Your task to perform on an android device: Open the web browser Image 0: 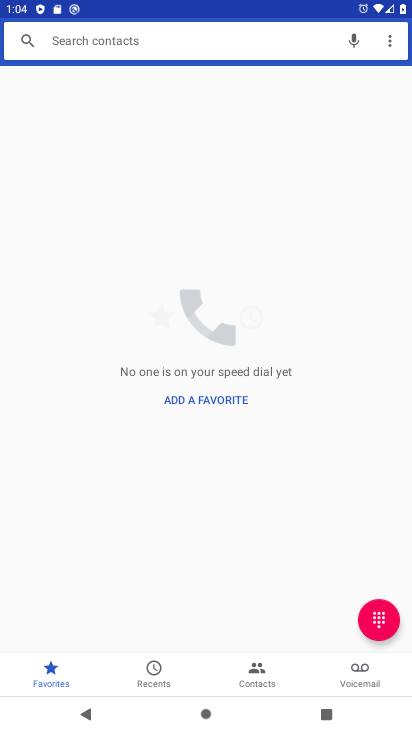
Step 0: press home button
Your task to perform on an android device: Open the web browser Image 1: 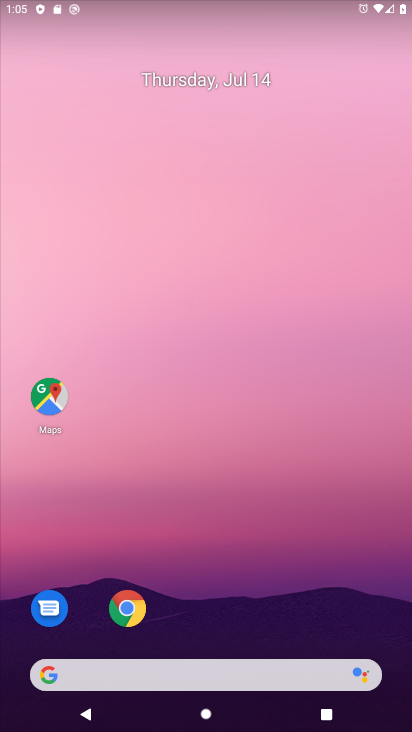
Step 1: click (108, 614)
Your task to perform on an android device: Open the web browser Image 2: 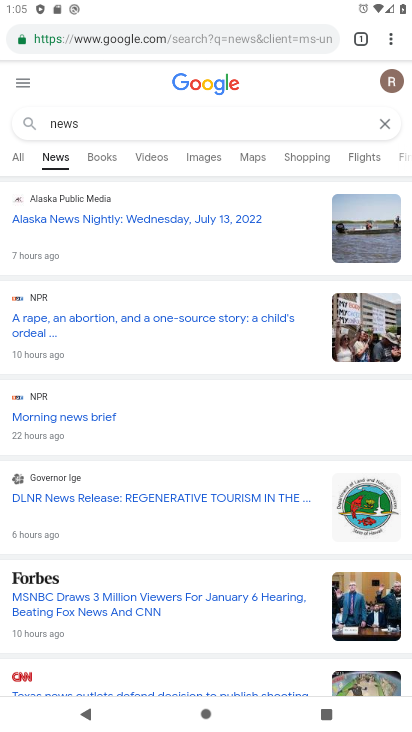
Step 2: click (192, 36)
Your task to perform on an android device: Open the web browser Image 3: 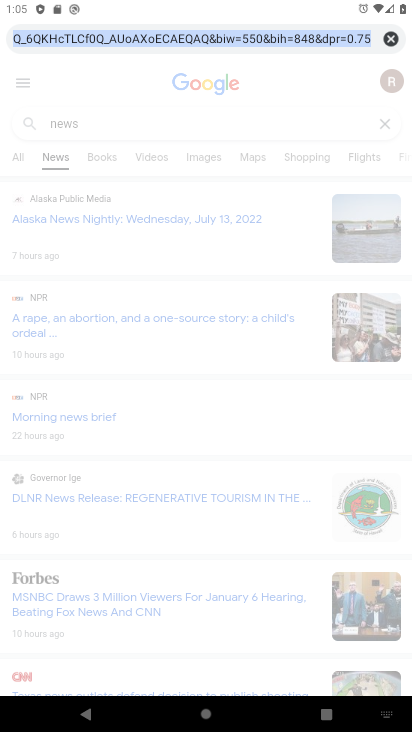
Step 3: type " web browser"
Your task to perform on an android device: Open the web browser Image 4: 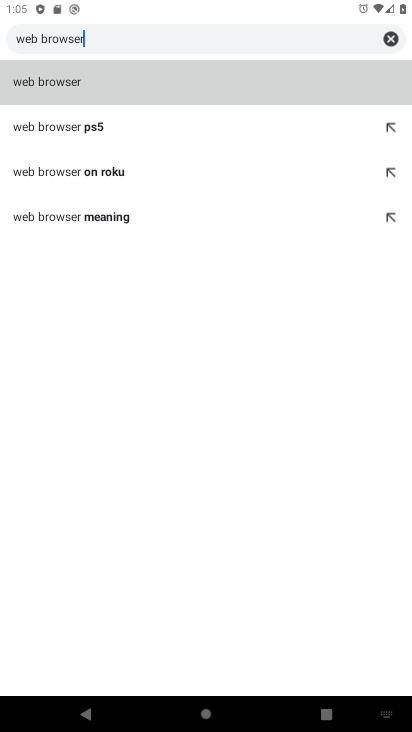
Step 4: type ""
Your task to perform on an android device: Open the web browser Image 5: 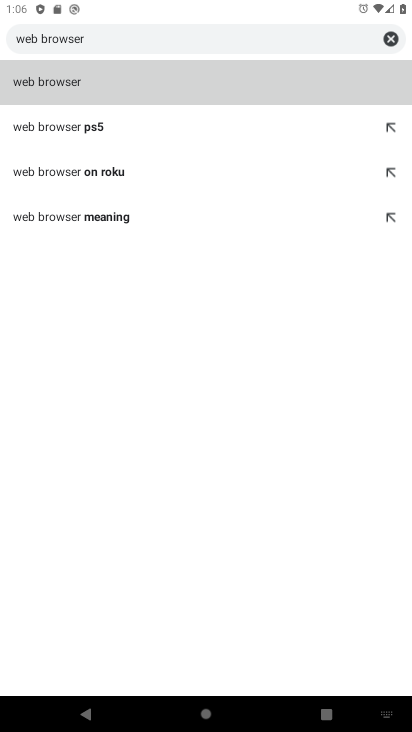
Step 5: click (191, 92)
Your task to perform on an android device: Open the web browser Image 6: 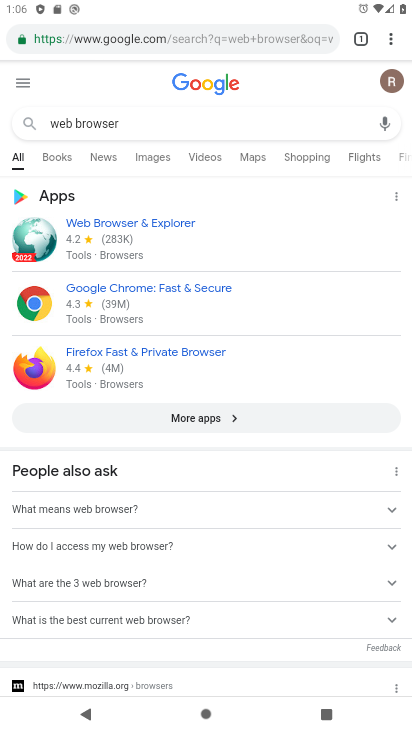
Step 6: task complete